Your task to perform on an android device: When is my next appointment? Image 0: 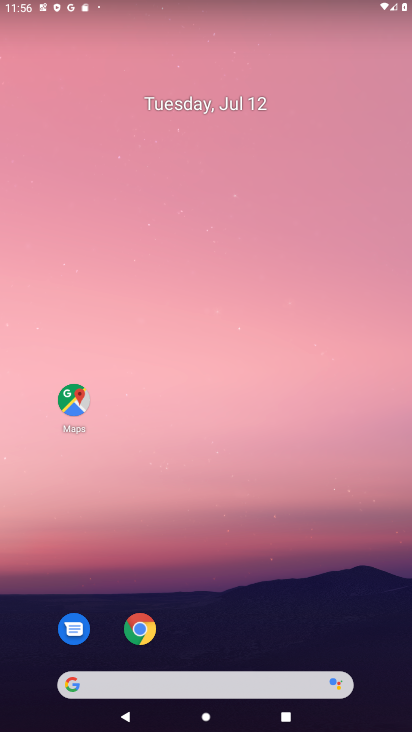
Step 0: drag from (270, 489) to (193, 93)
Your task to perform on an android device: When is my next appointment? Image 1: 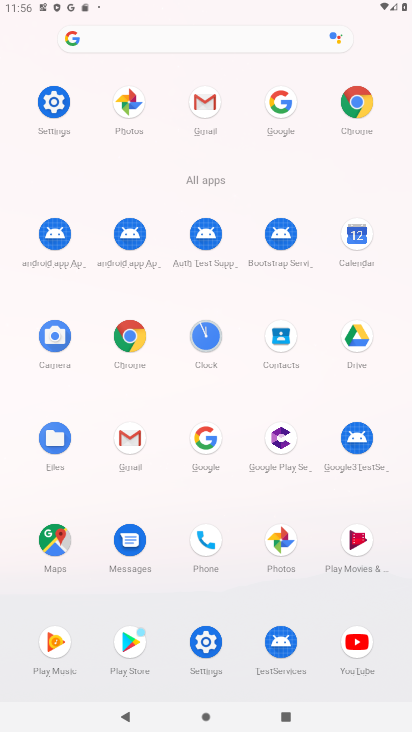
Step 1: click (364, 232)
Your task to perform on an android device: When is my next appointment? Image 2: 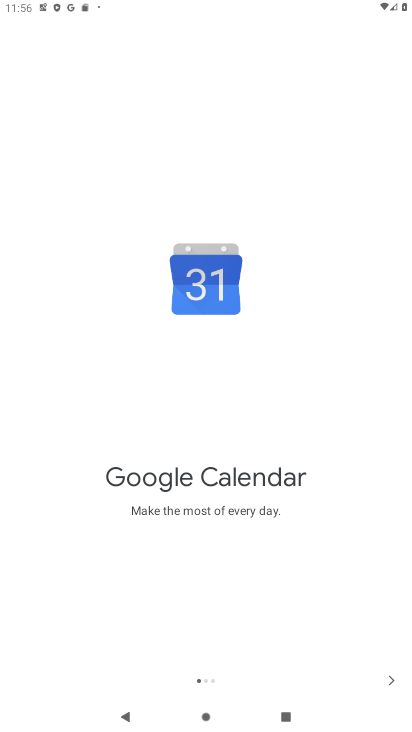
Step 2: click (382, 676)
Your task to perform on an android device: When is my next appointment? Image 3: 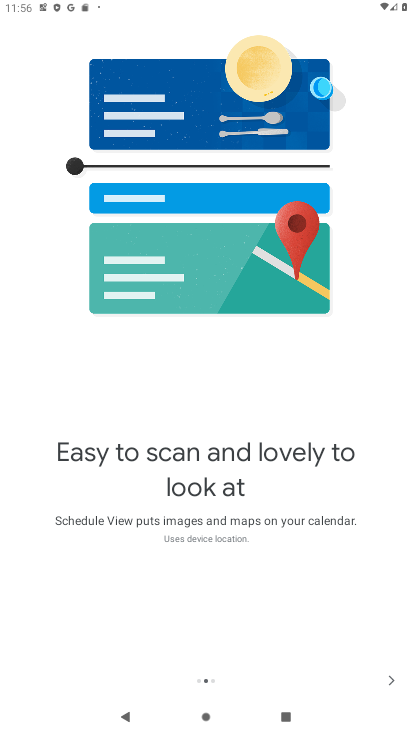
Step 3: click (376, 673)
Your task to perform on an android device: When is my next appointment? Image 4: 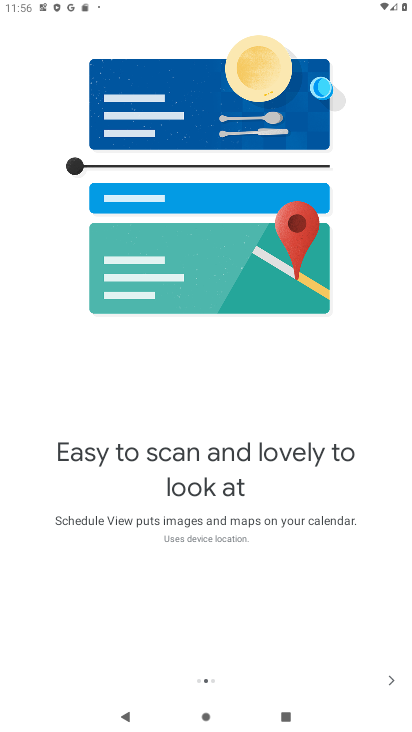
Step 4: click (385, 680)
Your task to perform on an android device: When is my next appointment? Image 5: 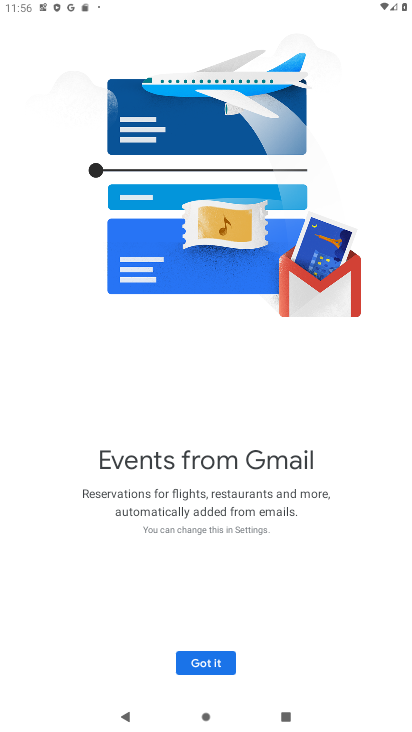
Step 5: click (210, 660)
Your task to perform on an android device: When is my next appointment? Image 6: 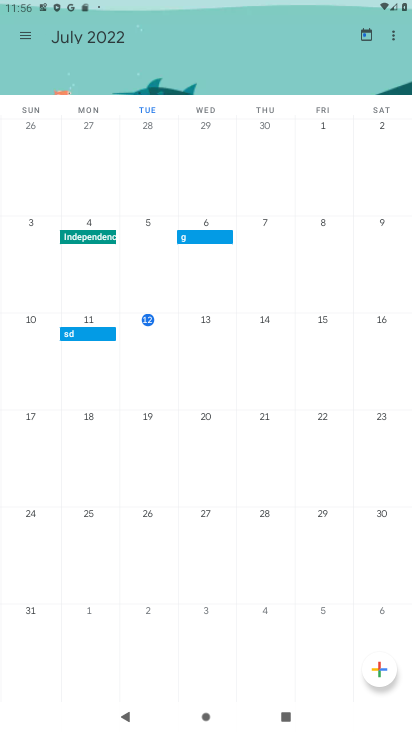
Step 6: click (154, 321)
Your task to perform on an android device: When is my next appointment? Image 7: 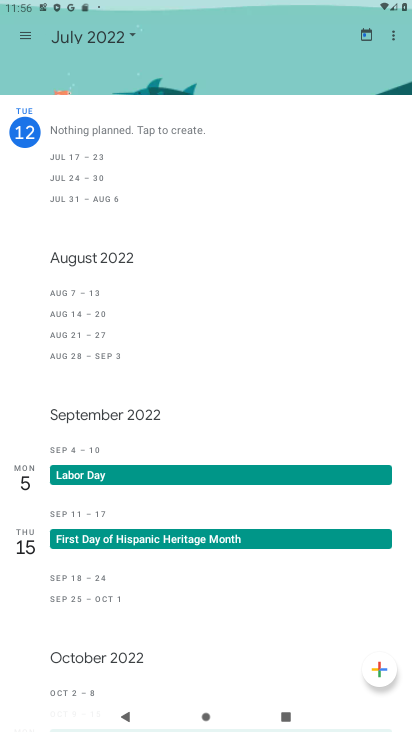
Step 7: task complete